Your task to perform on an android device: see tabs open on other devices in the chrome app Image 0: 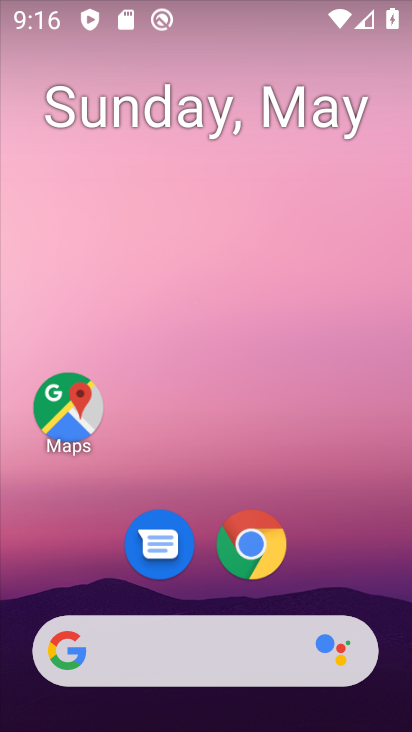
Step 0: drag from (375, 576) to (344, 72)
Your task to perform on an android device: see tabs open on other devices in the chrome app Image 1: 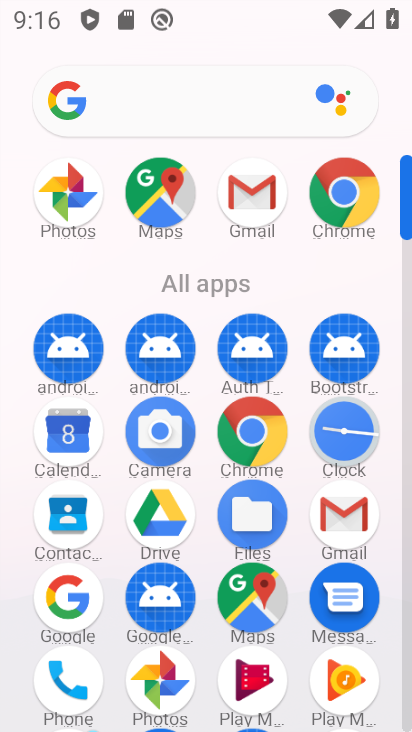
Step 1: click (335, 201)
Your task to perform on an android device: see tabs open on other devices in the chrome app Image 2: 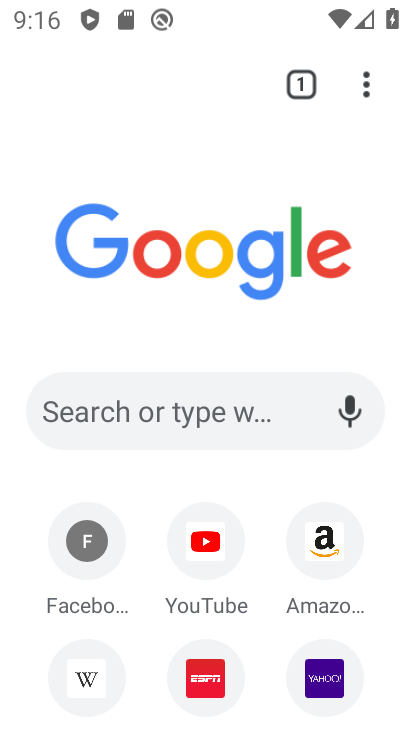
Step 2: task complete